Your task to perform on an android device: change the clock display to analog Image 0: 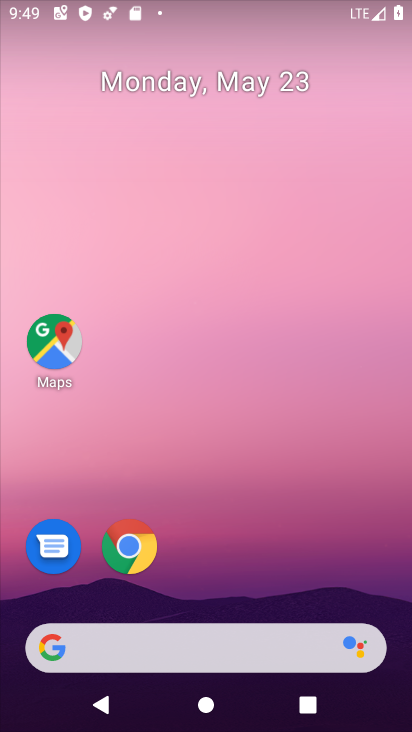
Step 0: drag from (377, 611) to (361, 56)
Your task to perform on an android device: change the clock display to analog Image 1: 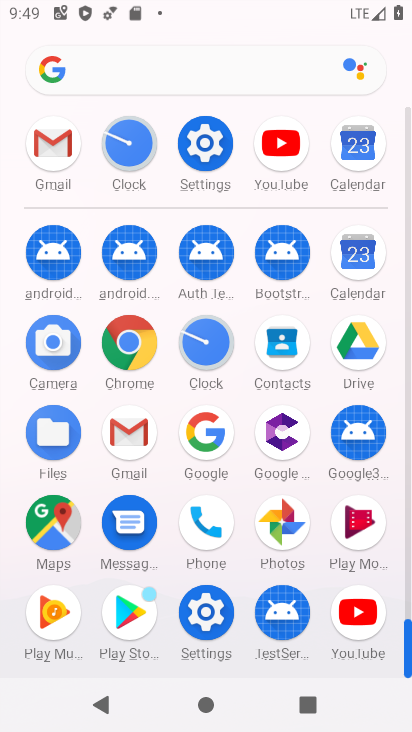
Step 1: click (208, 346)
Your task to perform on an android device: change the clock display to analog Image 2: 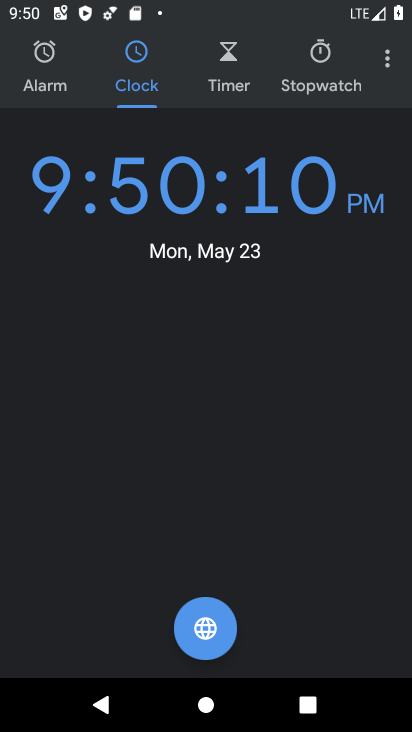
Step 2: click (384, 61)
Your task to perform on an android device: change the clock display to analog Image 3: 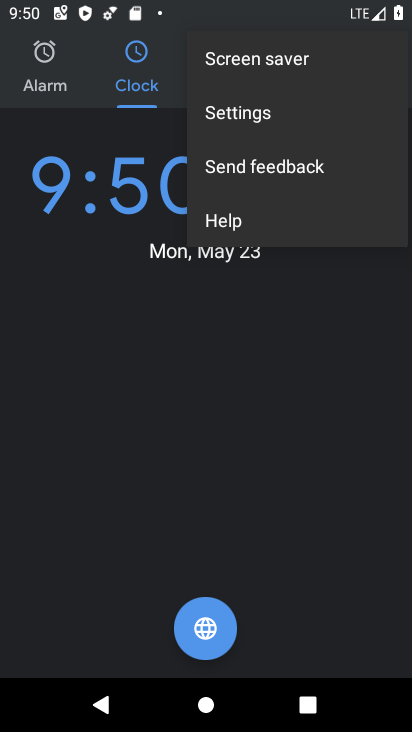
Step 3: click (233, 107)
Your task to perform on an android device: change the clock display to analog Image 4: 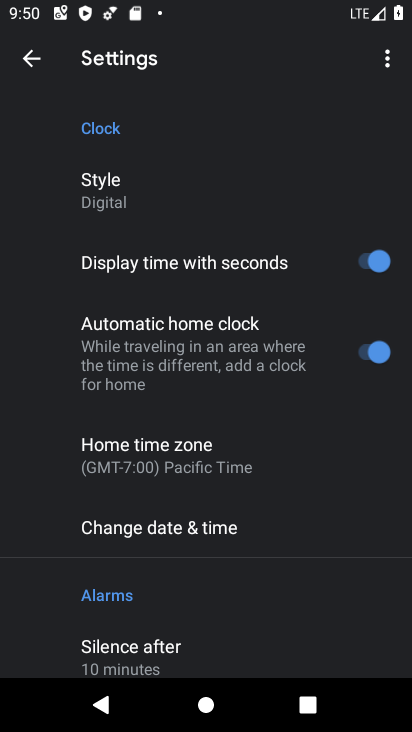
Step 4: click (113, 199)
Your task to perform on an android device: change the clock display to analog Image 5: 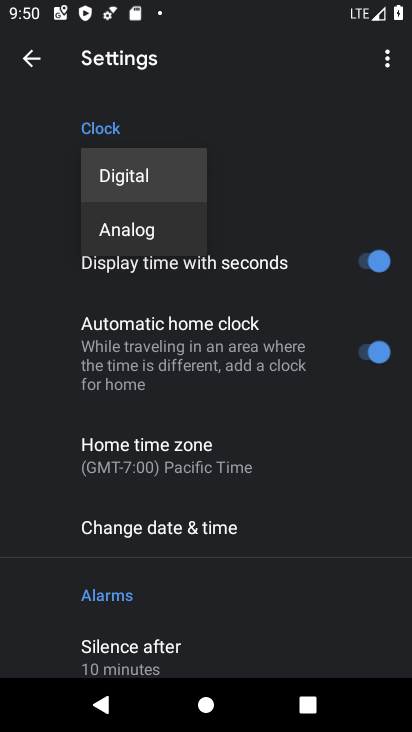
Step 5: click (128, 229)
Your task to perform on an android device: change the clock display to analog Image 6: 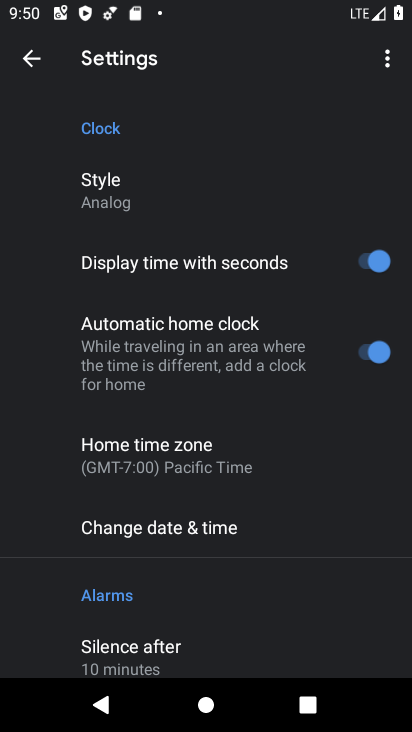
Step 6: task complete